Your task to perform on an android device: Open wifi settings Image 0: 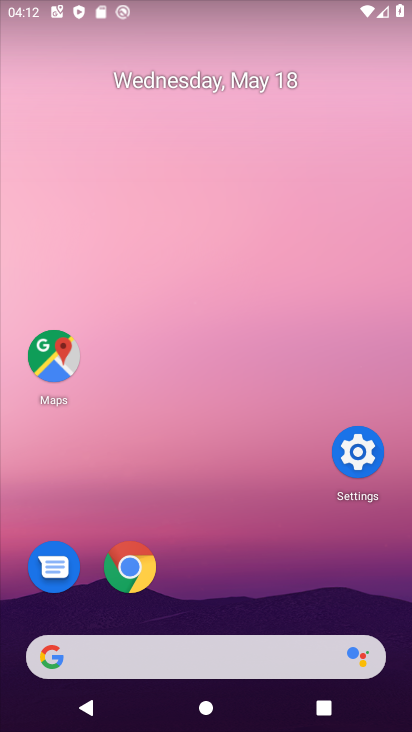
Step 0: drag from (144, 6) to (132, 382)
Your task to perform on an android device: Open wifi settings Image 1: 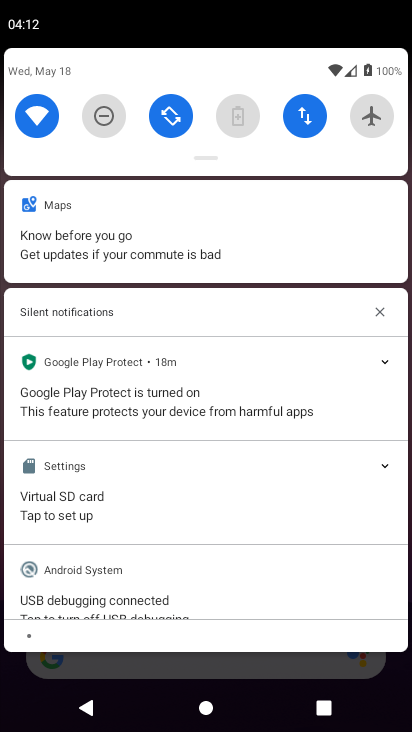
Step 1: click (36, 105)
Your task to perform on an android device: Open wifi settings Image 2: 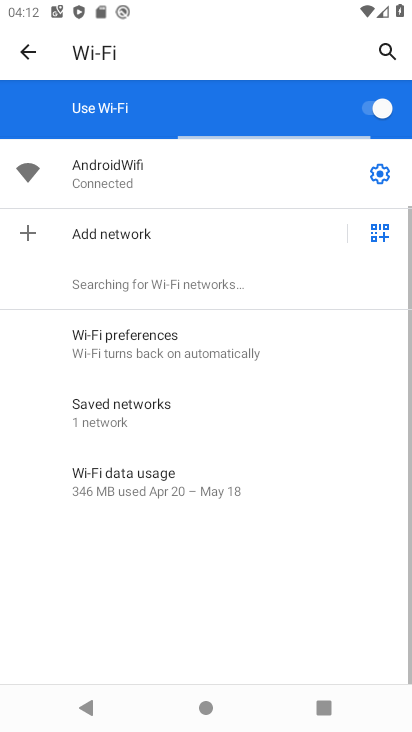
Step 2: task complete